Your task to perform on an android device: turn on location history Image 0: 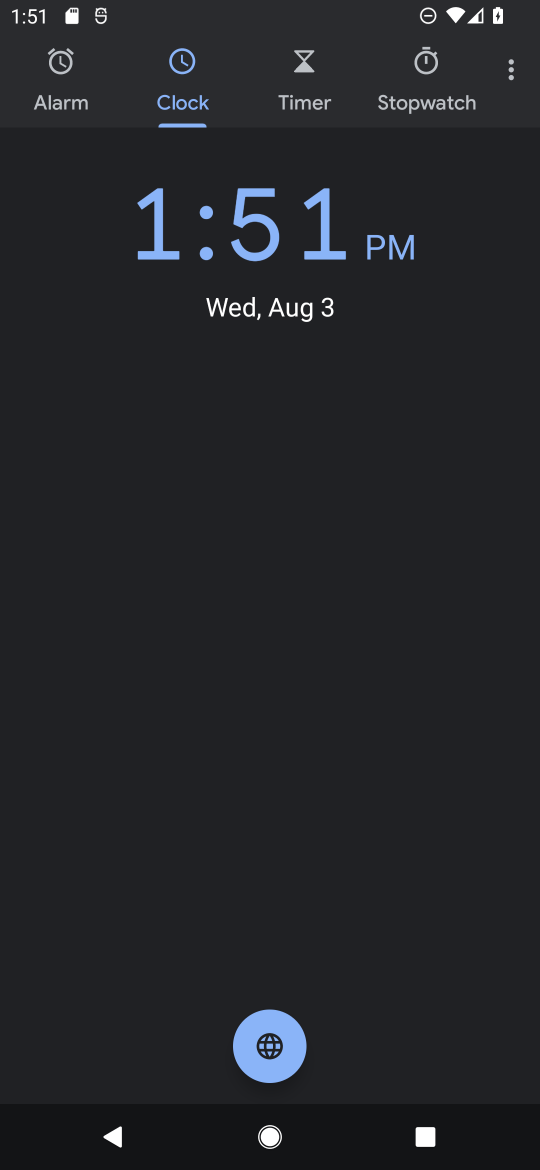
Step 0: press back button
Your task to perform on an android device: turn on location history Image 1: 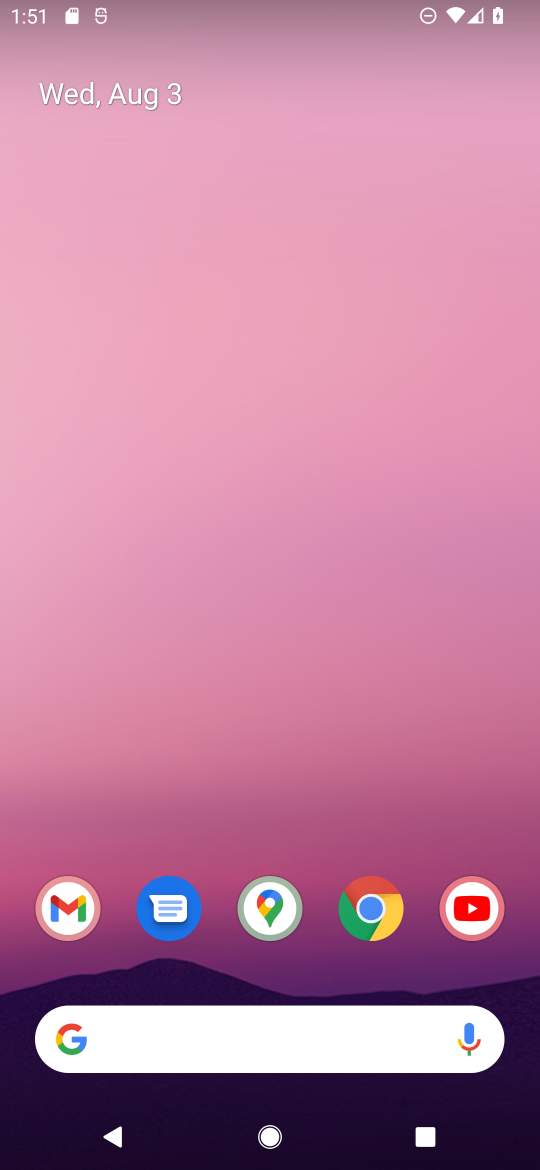
Step 1: drag from (251, 803) to (248, 0)
Your task to perform on an android device: turn on location history Image 2: 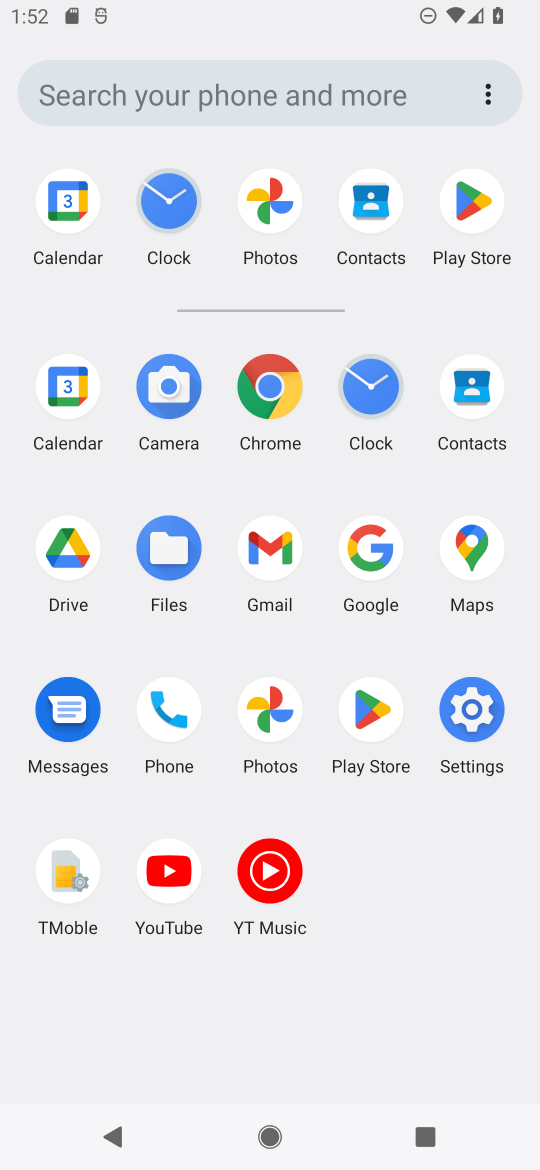
Step 2: click (475, 699)
Your task to perform on an android device: turn on location history Image 3: 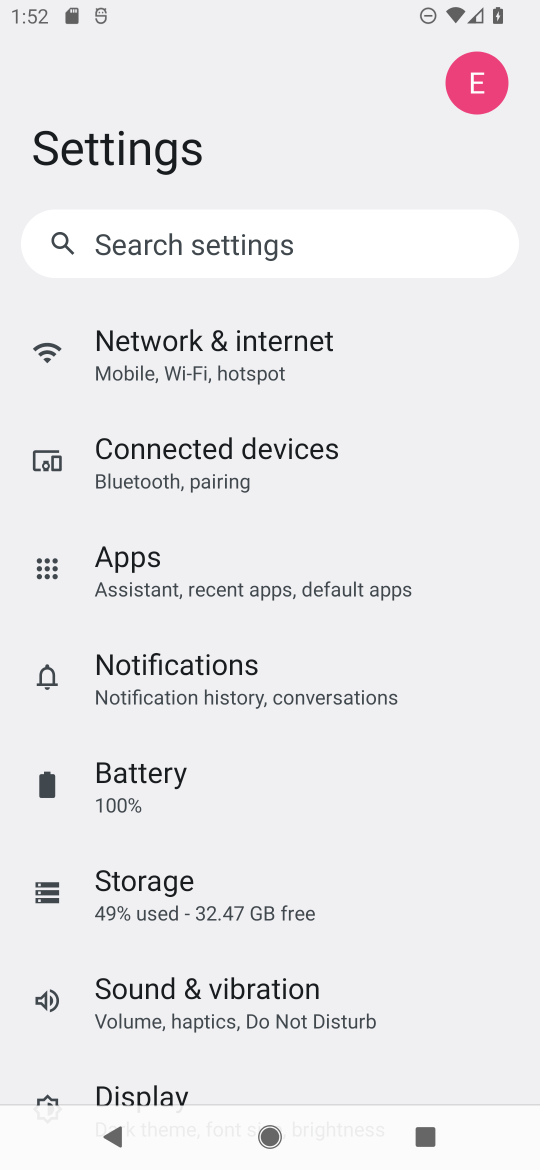
Step 3: drag from (209, 861) to (180, 318)
Your task to perform on an android device: turn on location history Image 4: 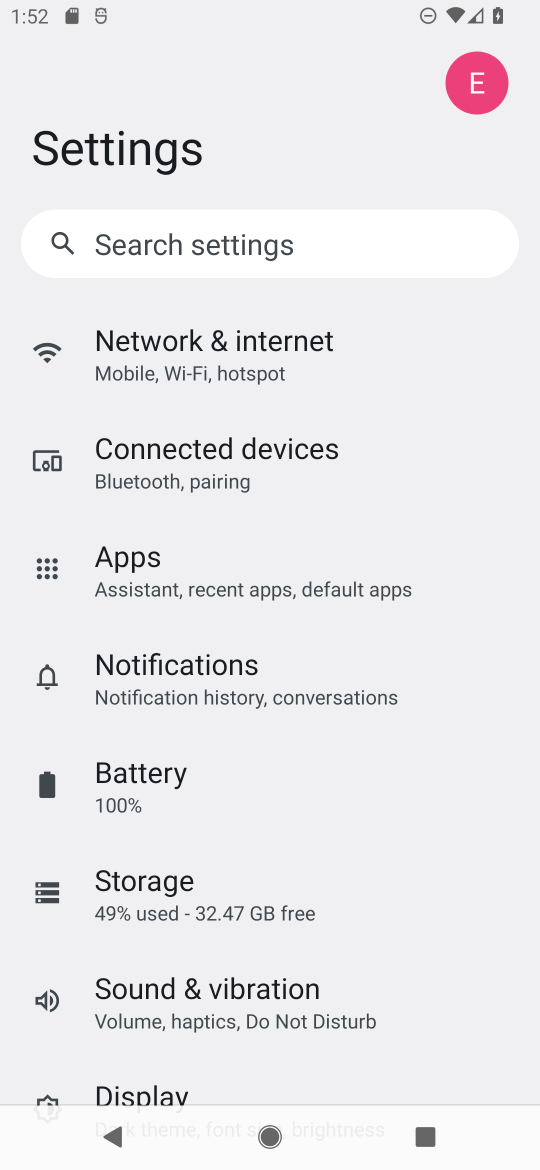
Step 4: drag from (227, 996) to (216, 481)
Your task to perform on an android device: turn on location history Image 5: 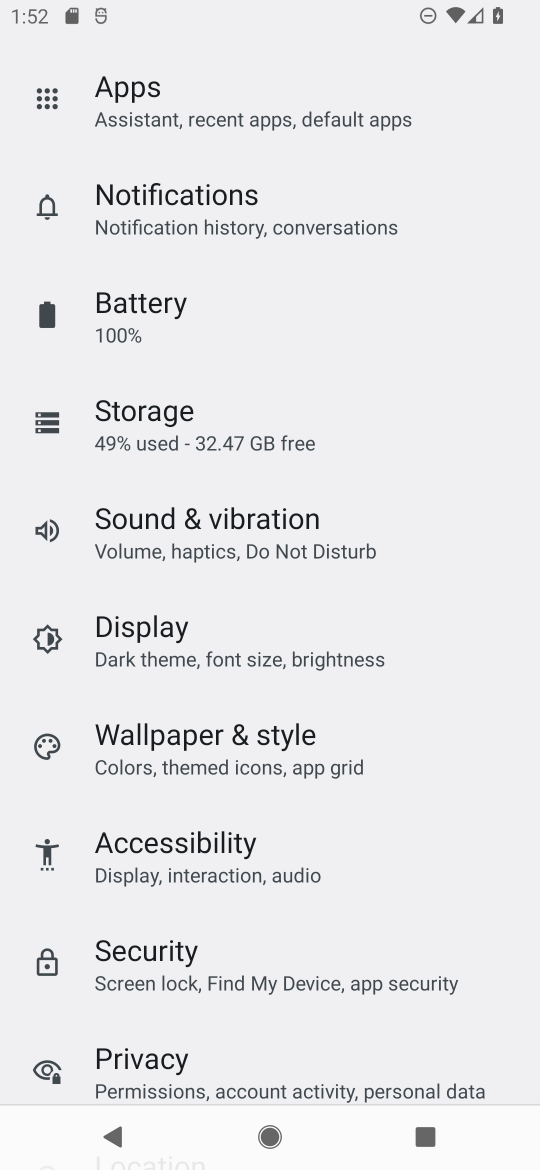
Step 5: drag from (231, 928) to (231, 515)
Your task to perform on an android device: turn on location history Image 6: 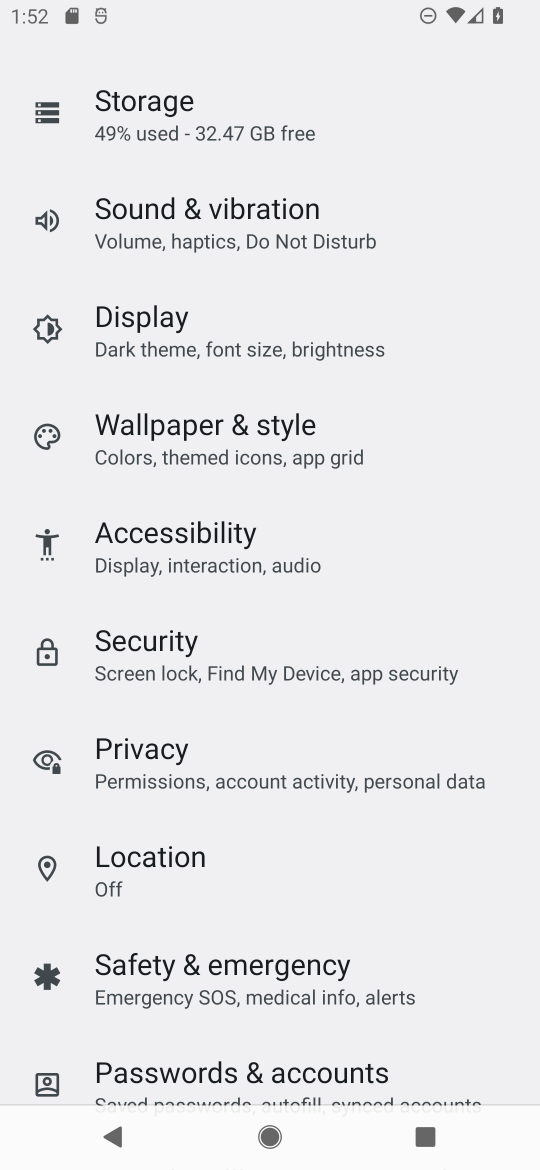
Step 6: drag from (240, 900) to (252, 571)
Your task to perform on an android device: turn on location history Image 7: 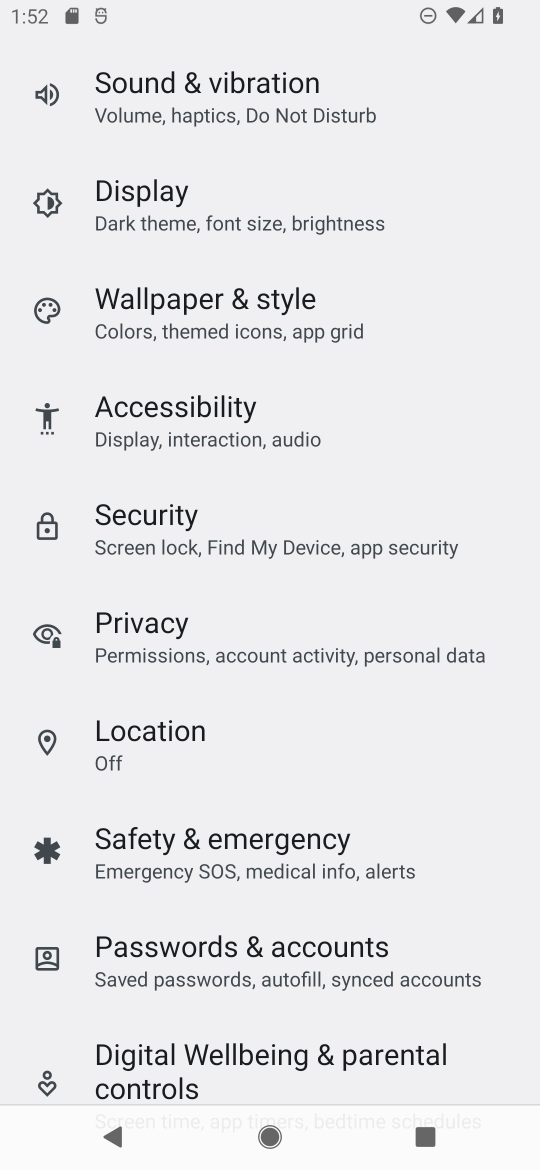
Step 7: drag from (272, 937) to (282, 287)
Your task to perform on an android device: turn on location history Image 8: 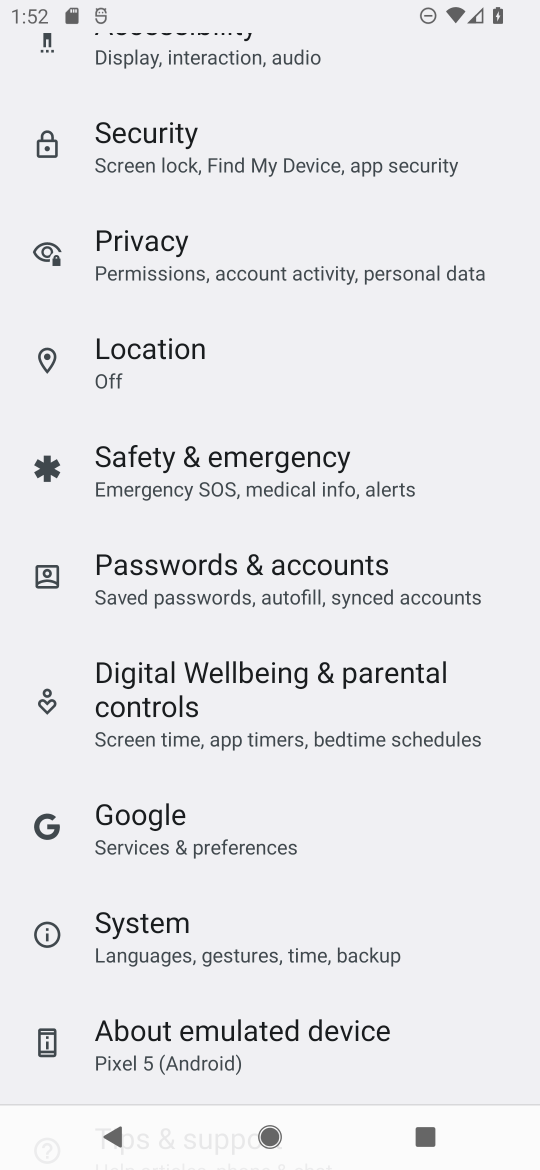
Step 8: click (187, 361)
Your task to perform on an android device: turn on location history Image 9: 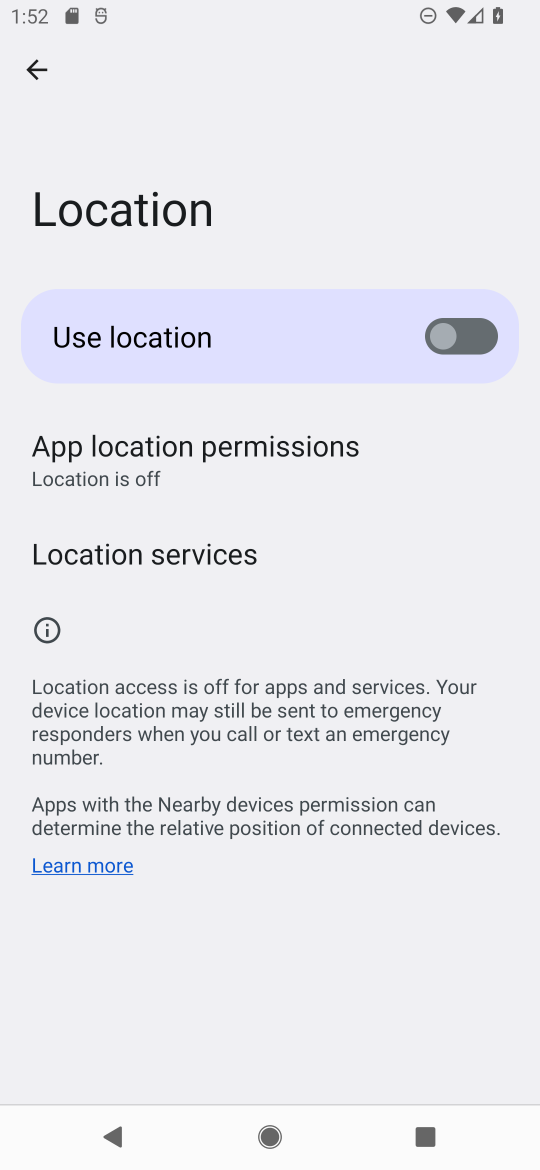
Step 9: click (156, 548)
Your task to perform on an android device: turn on location history Image 10: 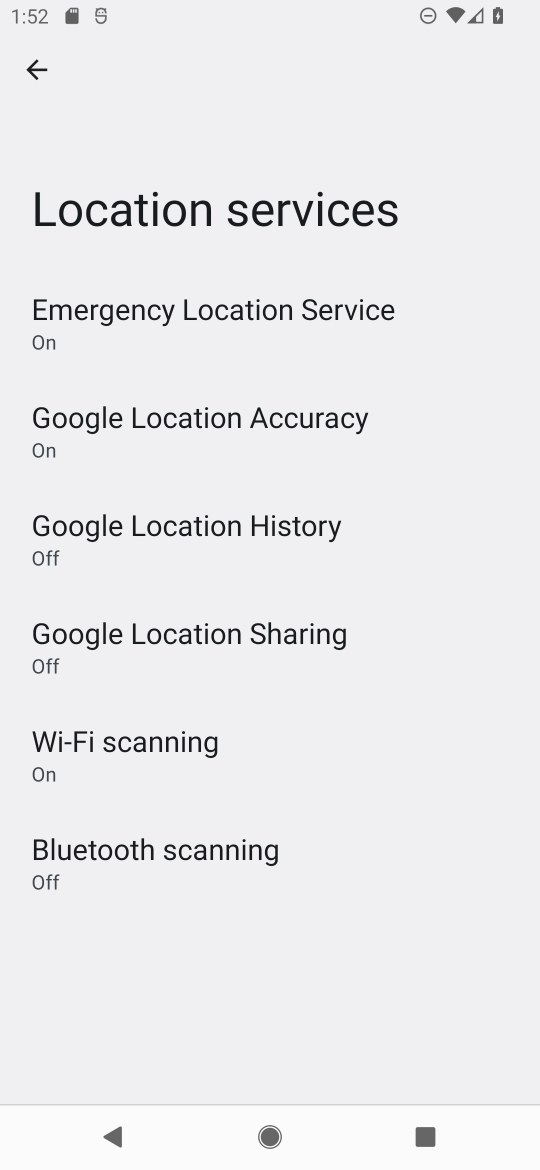
Step 10: click (305, 532)
Your task to perform on an android device: turn on location history Image 11: 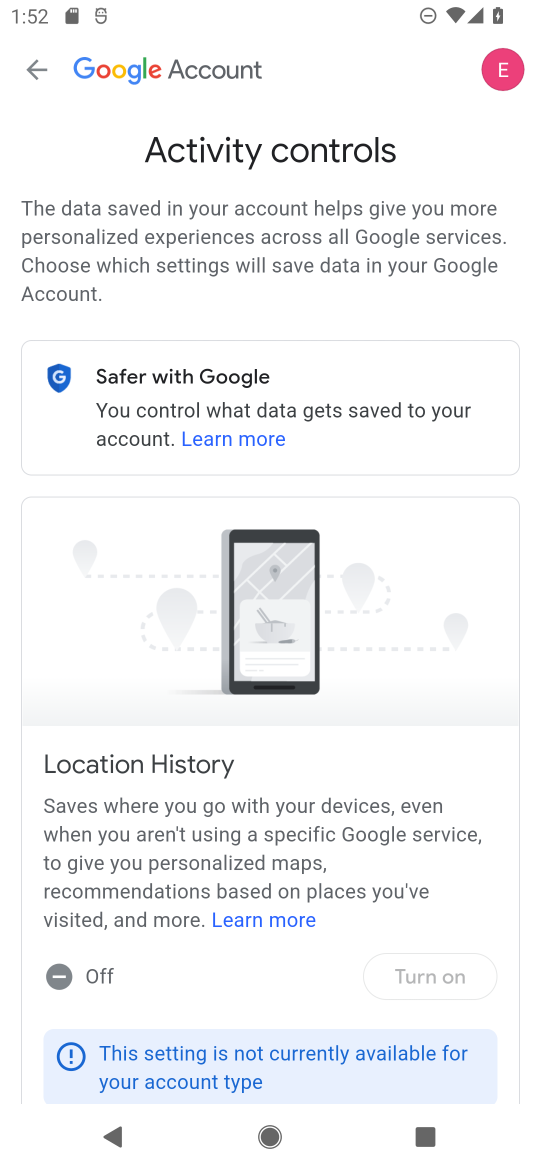
Step 11: task complete